Your task to perform on an android device: Go to Yahoo.com Image 0: 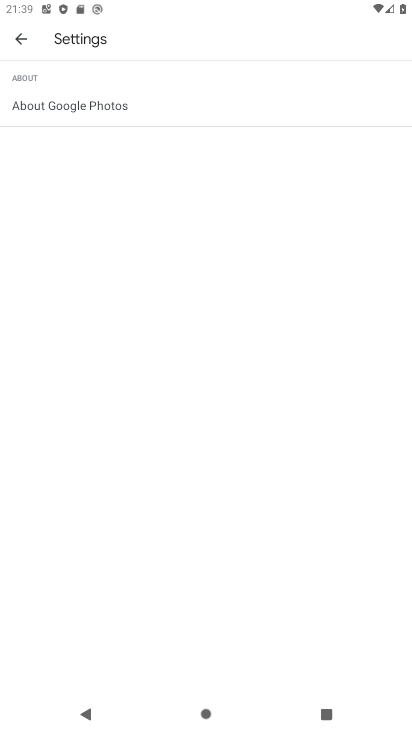
Step 0: press home button
Your task to perform on an android device: Go to Yahoo.com Image 1: 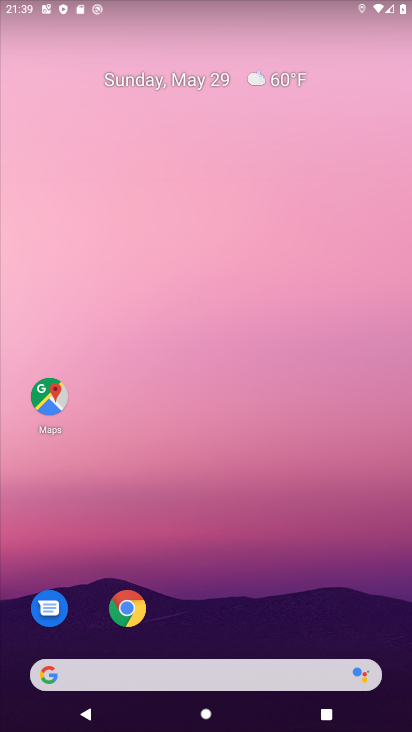
Step 1: drag from (368, 607) to (361, 184)
Your task to perform on an android device: Go to Yahoo.com Image 2: 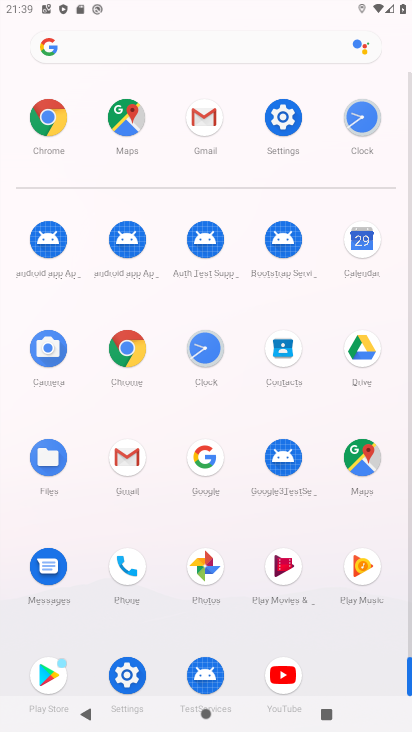
Step 2: click (132, 356)
Your task to perform on an android device: Go to Yahoo.com Image 3: 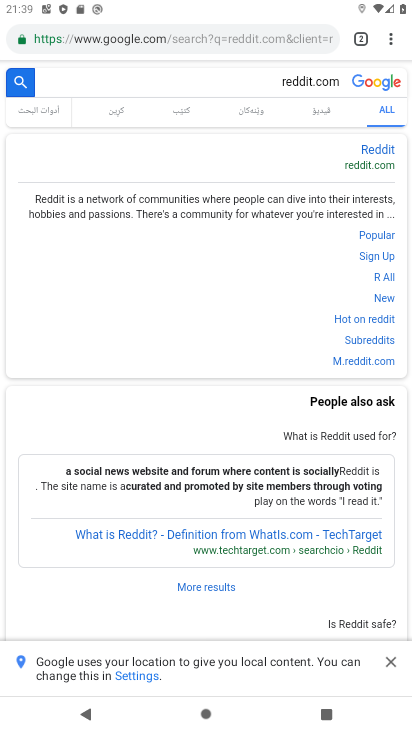
Step 3: click (227, 40)
Your task to perform on an android device: Go to Yahoo.com Image 4: 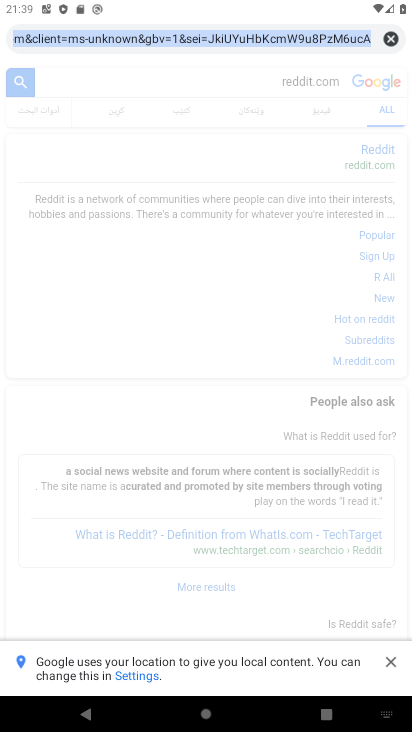
Step 4: click (390, 45)
Your task to perform on an android device: Go to Yahoo.com Image 5: 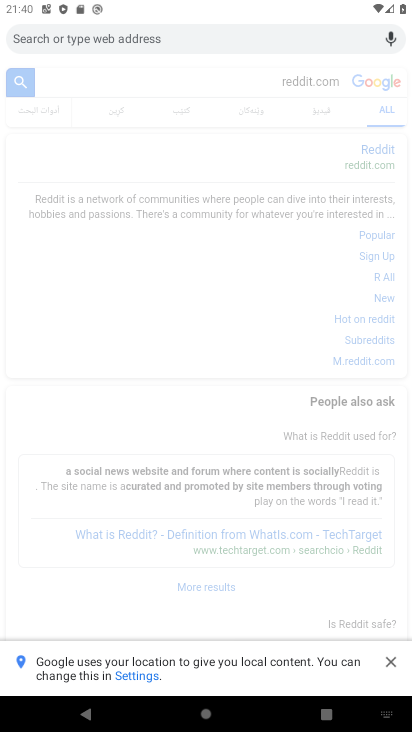
Step 5: type "yahoo.com"
Your task to perform on an android device: Go to Yahoo.com Image 6: 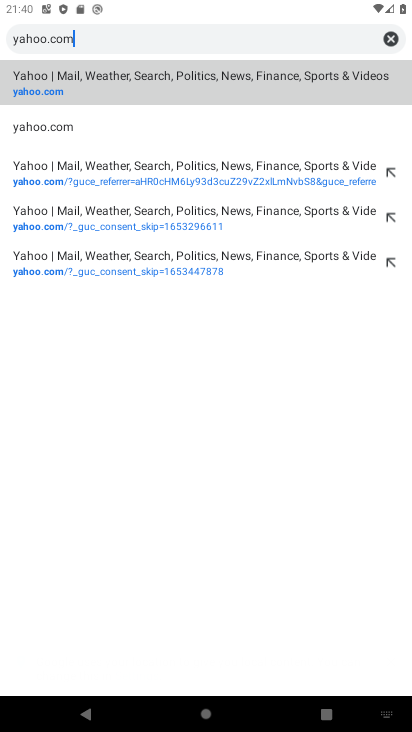
Step 6: click (300, 79)
Your task to perform on an android device: Go to Yahoo.com Image 7: 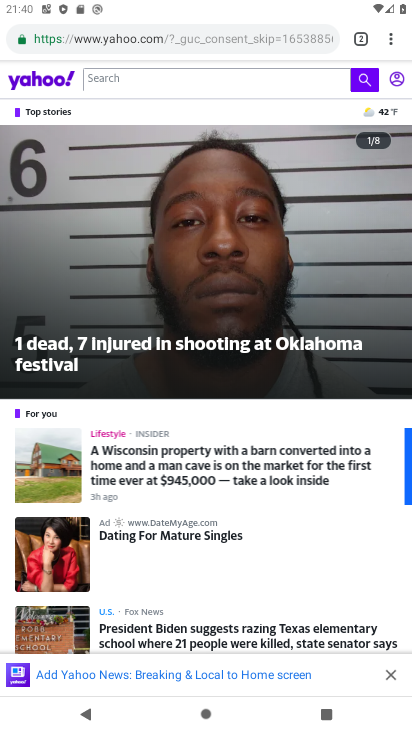
Step 7: task complete